Your task to perform on an android device: Open internet settings Image 0: 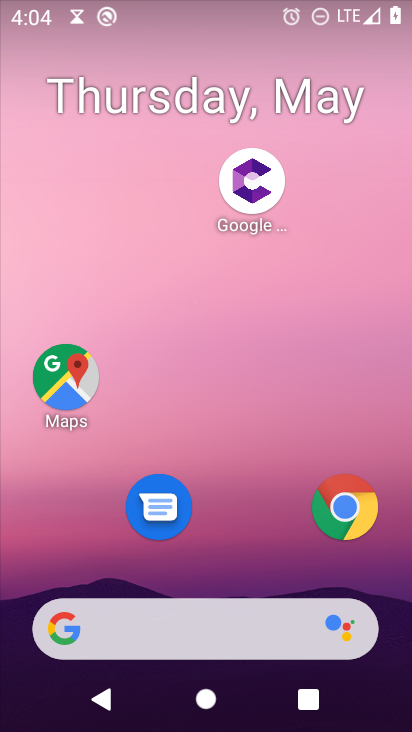
Step 0: press home button
Your task to perform on an android device: Open internet settings Image 1: 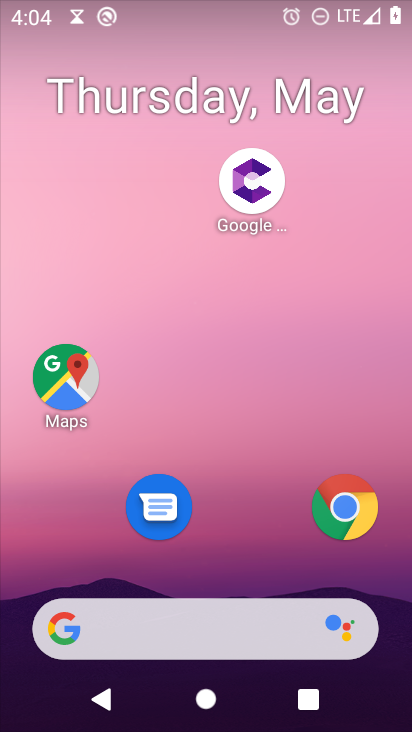
Step 1: drag from (240, 577) to (215, 155)
Your task to perform on an android device: Open internet settings Image 2: 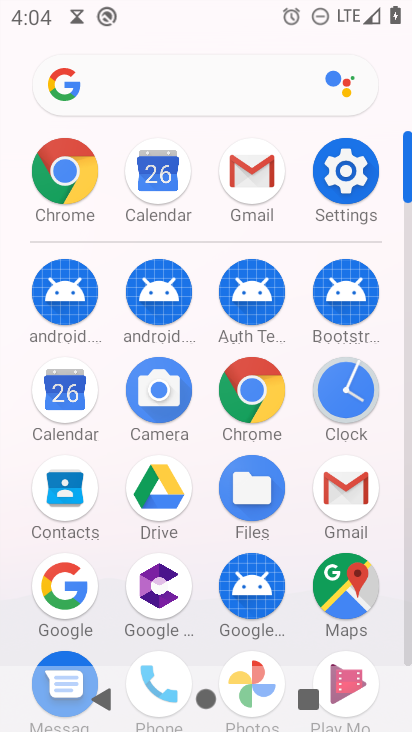
Step 2: click (352, 191)
Your task to perform on an android device: Open internet settings Image 3: 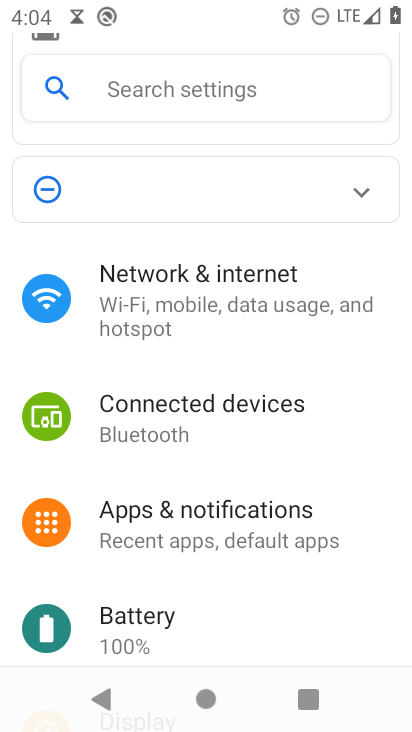
Step 3: click (173, 278)
Your task to perform on an android device: Open internet settings Image 4: 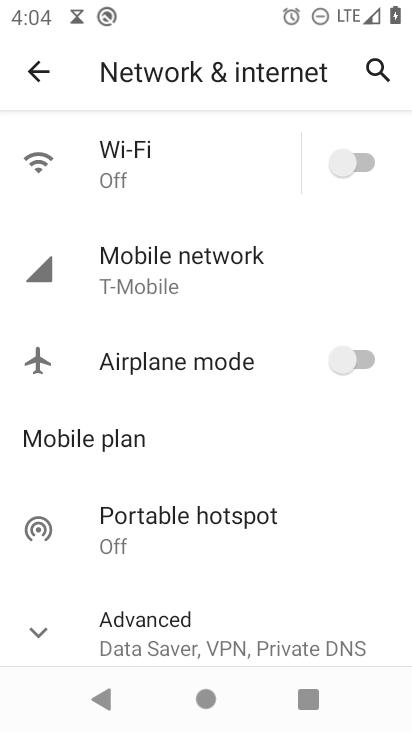
Step 4: click (119, 636)
Your task to perform on an android device: Open internet settings Image 5: 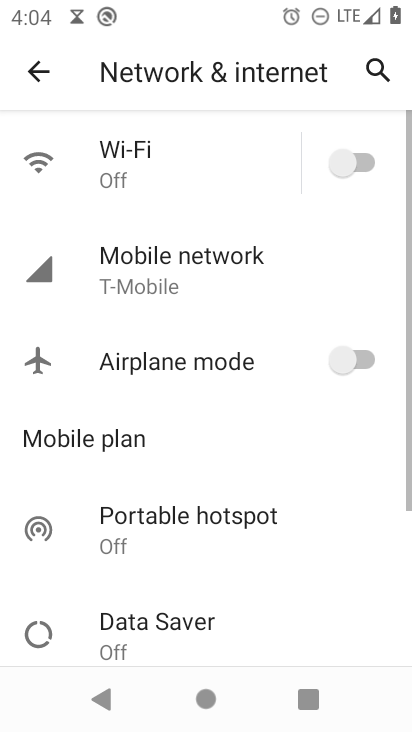
Step 5: task complete